Your task to perform on an android device: toggle pop-ups in chrome Image 0: 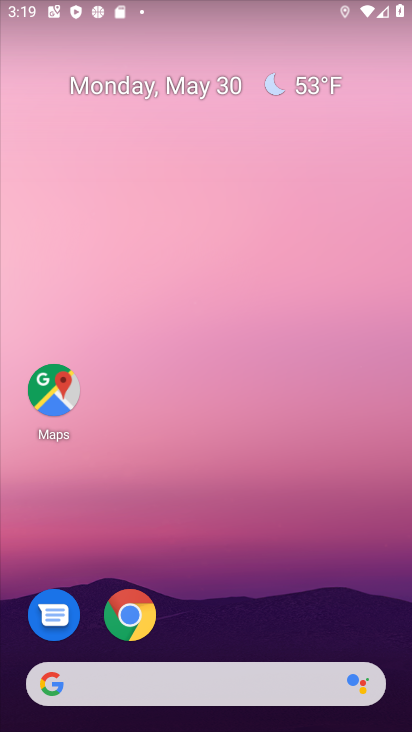
Step 0: drag from (286, 609) to (253, 175)
Your task to perform on an android device: toggle pop-ups in chrome Image 1: 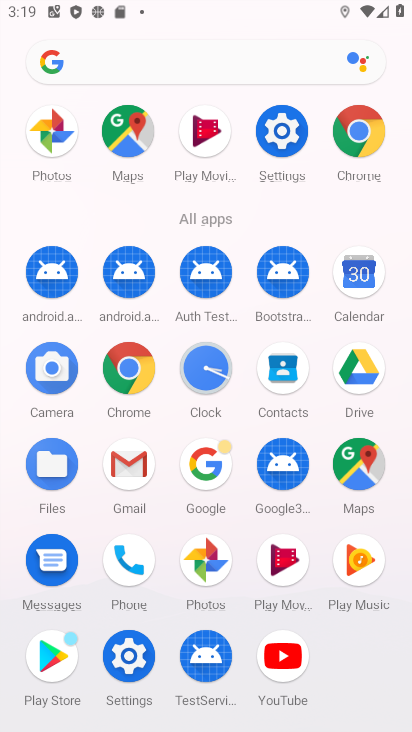
Step 1: click (136, 393)
Your task to perform on an android device: toggle pop-ups in chrome Image 2: 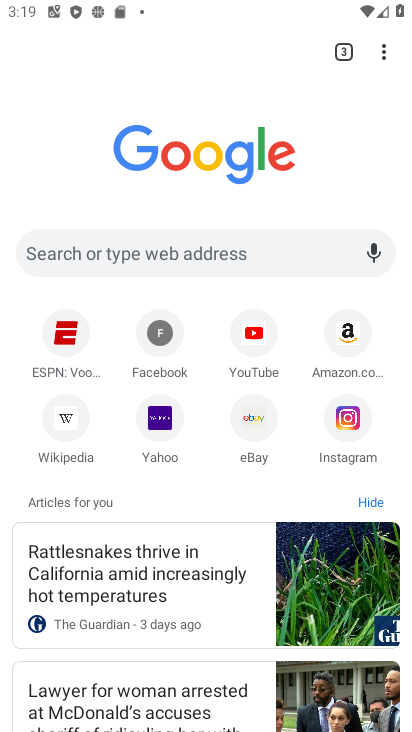
Step 2: click (387, 42)
Your task to perform on an android device: toggle pop-ups in chrome Image 3: 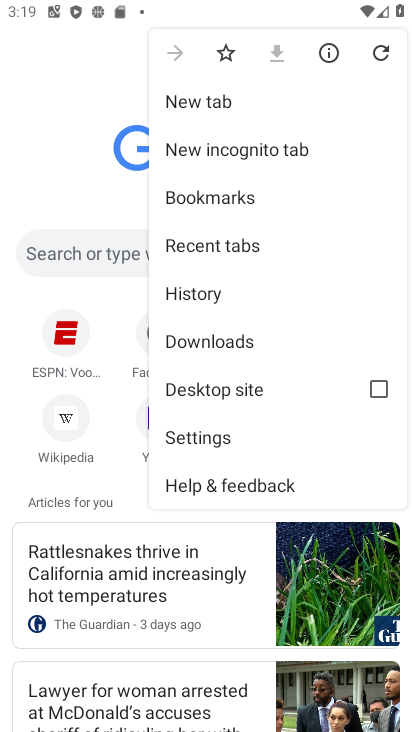
Step 3: click (198, 437)
Your task to perform on an android device: toggle pop-ups in chrome Image 4: 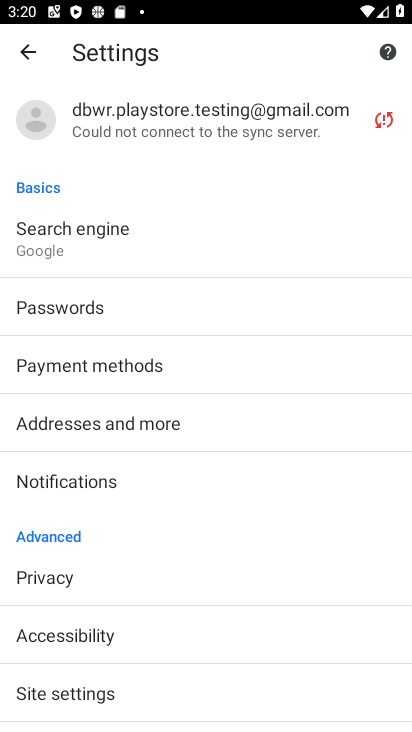
Step 4: click (119, 699)
Your task to perform on an android device: toggle pop-ups in chrome Image 5: 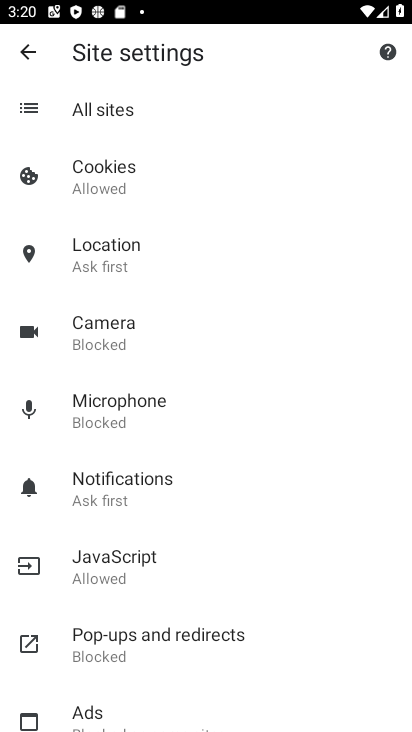
Step 5: click (131, 634)
Your task to perform on an android device: toggle pop-ups in chrome Image 6: 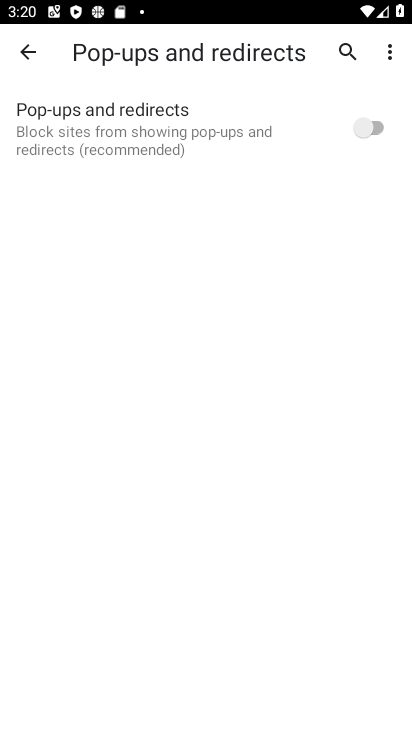
Step 6: click (367, 136)
Your task to perform on an android device: toggle pop-ups in chrome Image 7: 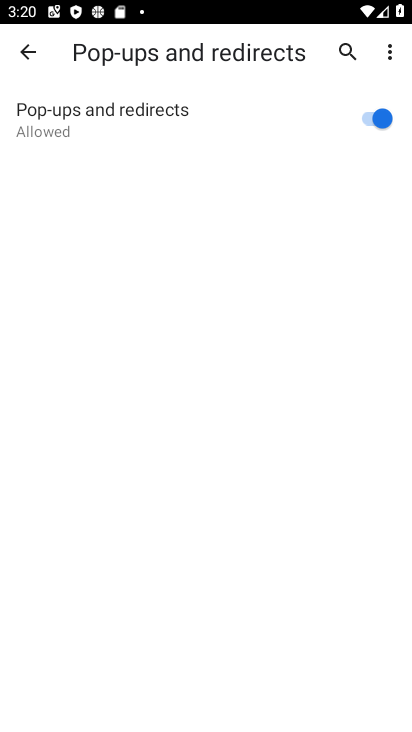
Step 7: task complete